Your task to perform on an android device: Go to calendar. Show me events next week Image 0: 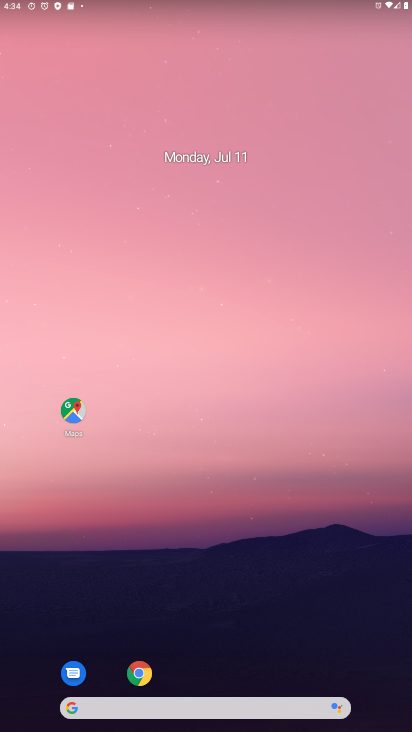
Step 0: drag from (248, 586) to (297, 62)
Your task to perform on an android device: Go to calendar. Show me events next week Image 1: 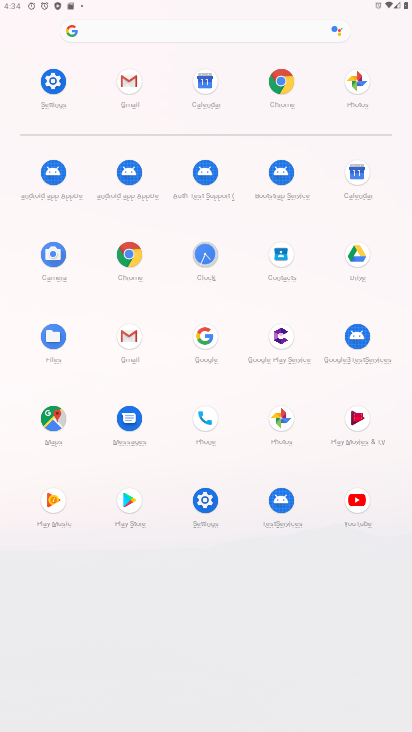
Step 1: click (359, 173)
Your task to perform on an android device: Go to calendar. Show me events next week Image 2: 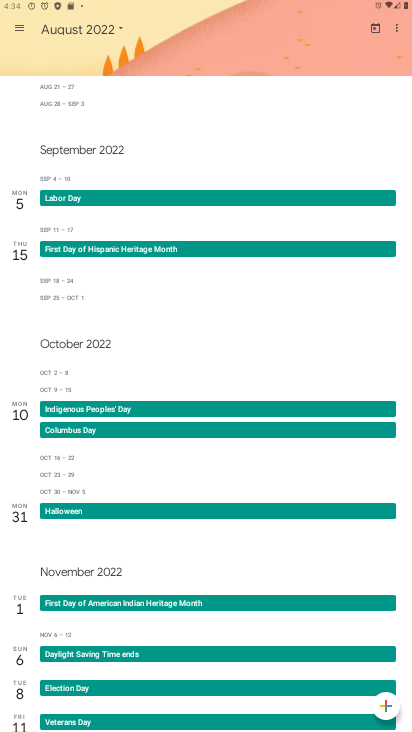
Step 2: drag from (203, 108) to (213, 437)
Your task to perform on an android device: Go to calendar. Show me events next week Image 3: 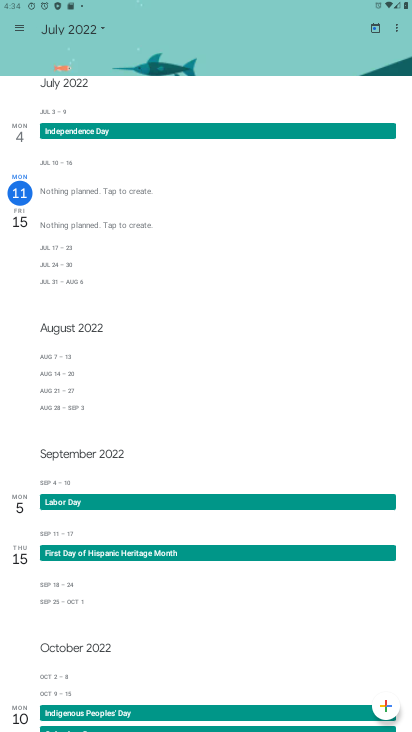
Step 3: click (51, 27)
Your task to perform on an android device: Go to calendar. Show me events next week Image 4: 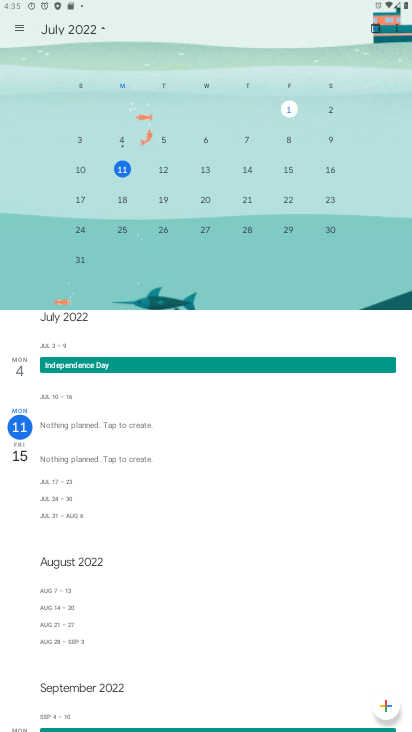
Step 4: click (120, 198)
Your task to perform on an android device: Go to calendar. Show me events next week Image 5: 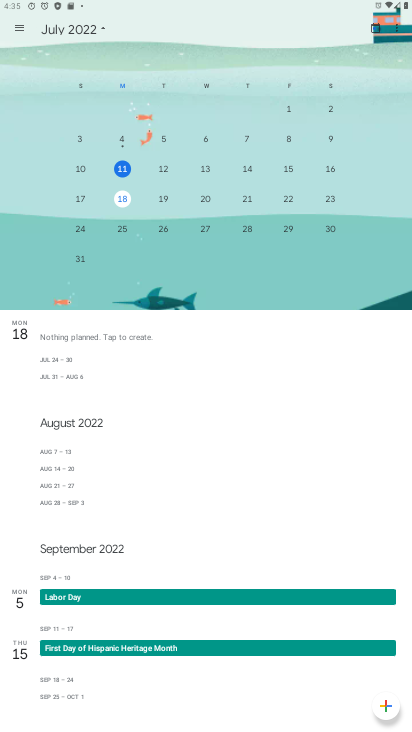
Step 5: task complete